Your task to perform on an android device: Add "logitech g933" to the cart on amazon.com, then select checkout. Image 0: 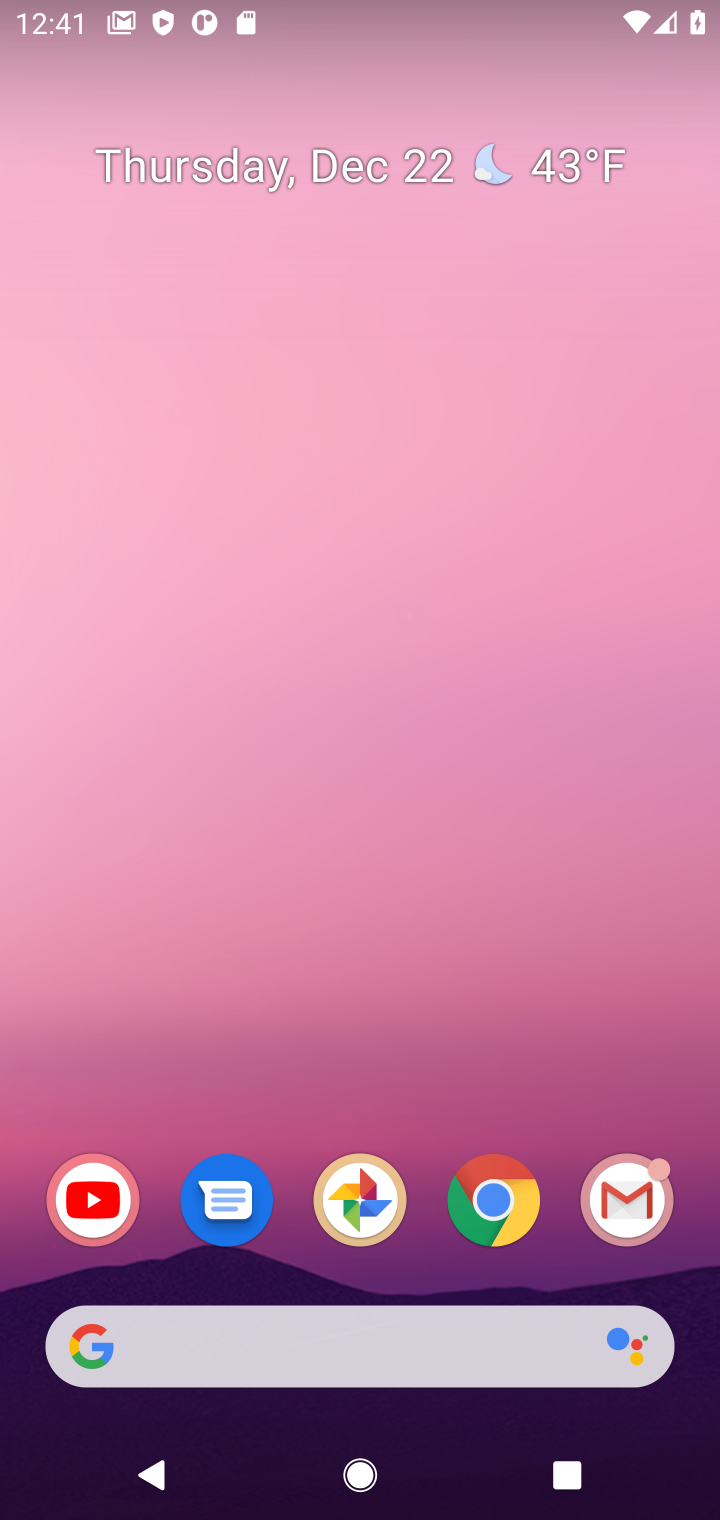
Step 0: click (507, 1200)
Your task to perform on an android device: Add "logitech g933" to the cart on amazon.com, then select checkout. Image 1: 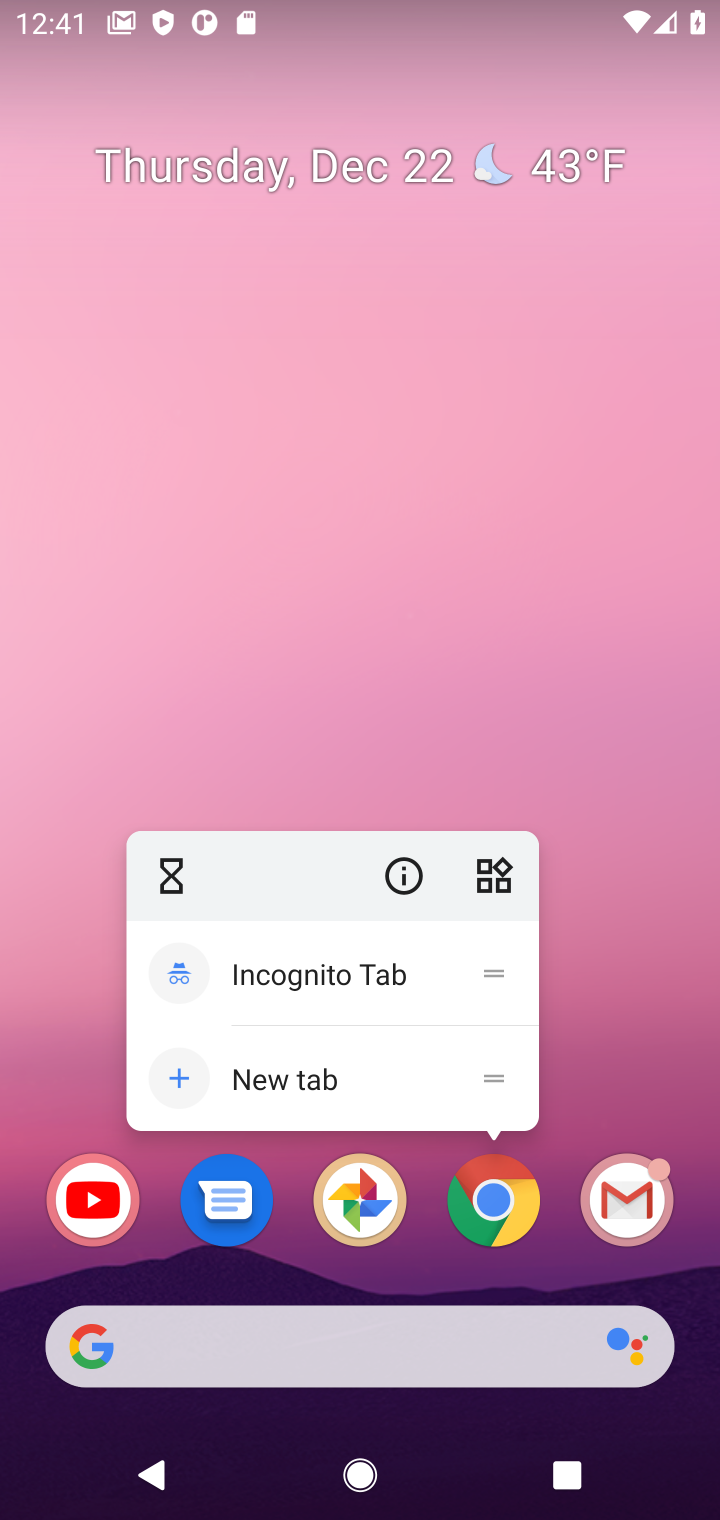
Step 1: click (499, 1222)
Your task to perform on an android device: Add "logitech g933" to the cart on amazon.com, then select checkout. Image 2: 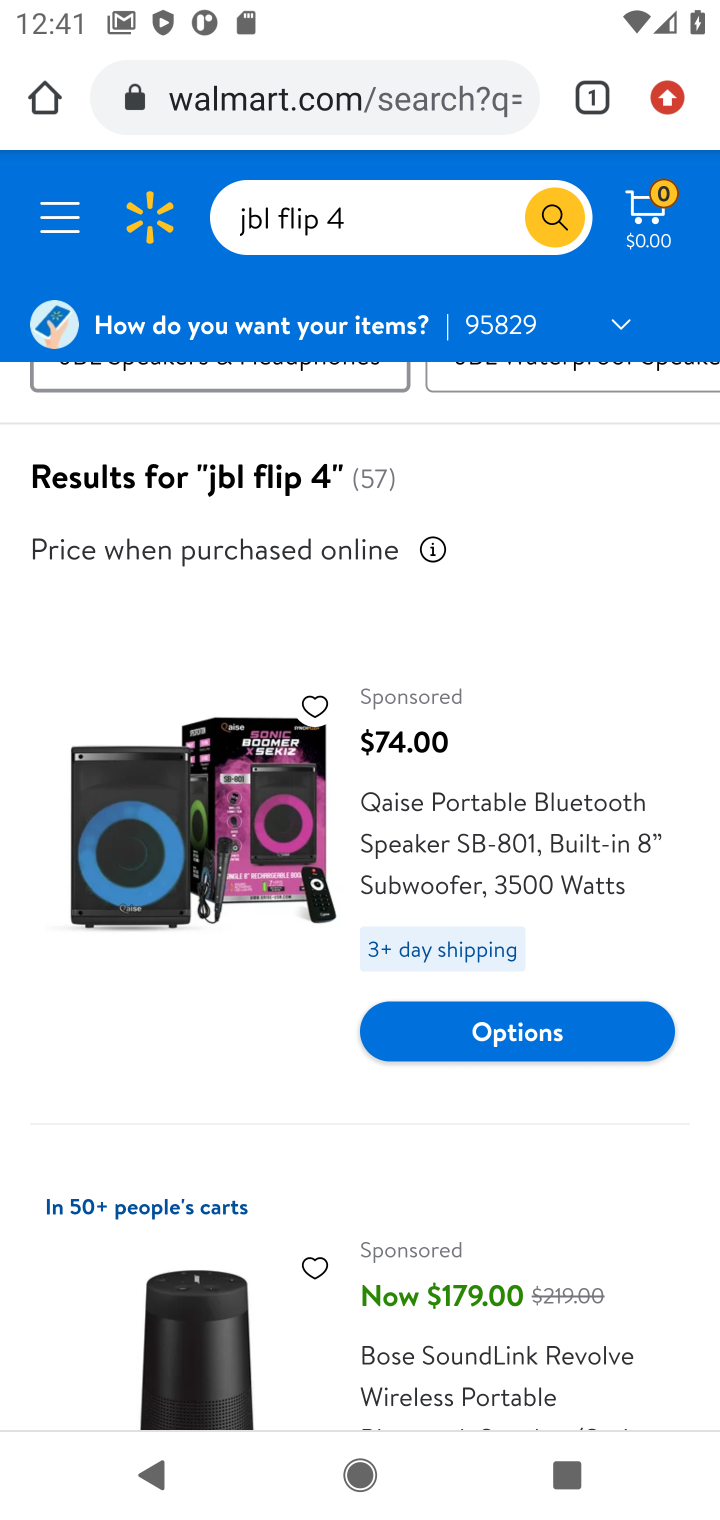
Step 2: click (294, 111)
Your task to perform on an android device: Add "logitech g933" to the cart on amazon.com, then select checkout. Image 3: 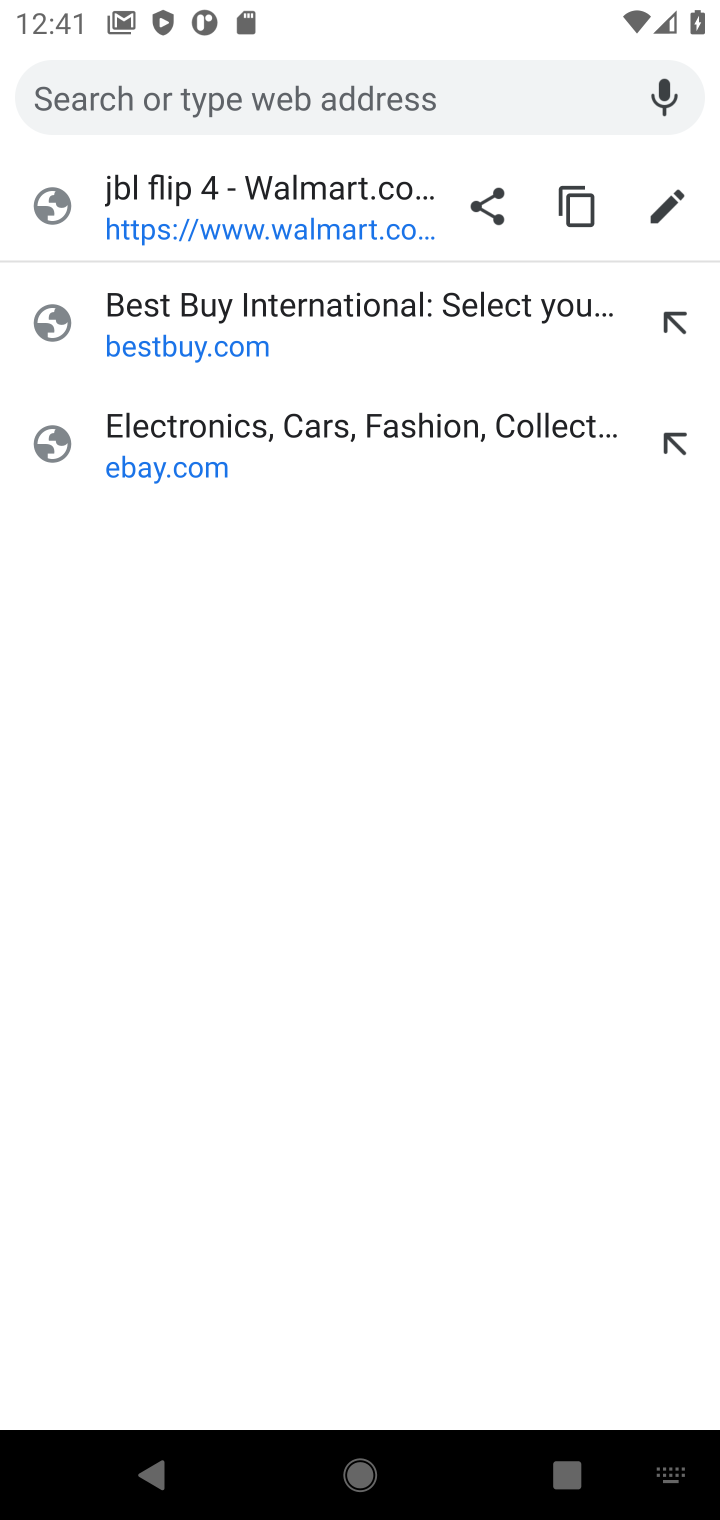
Step 3: type "amazon.com"
Your task to perform on an android device: Add "logitech g933" to the cart on amazon.com, then select checkout. Image 4: 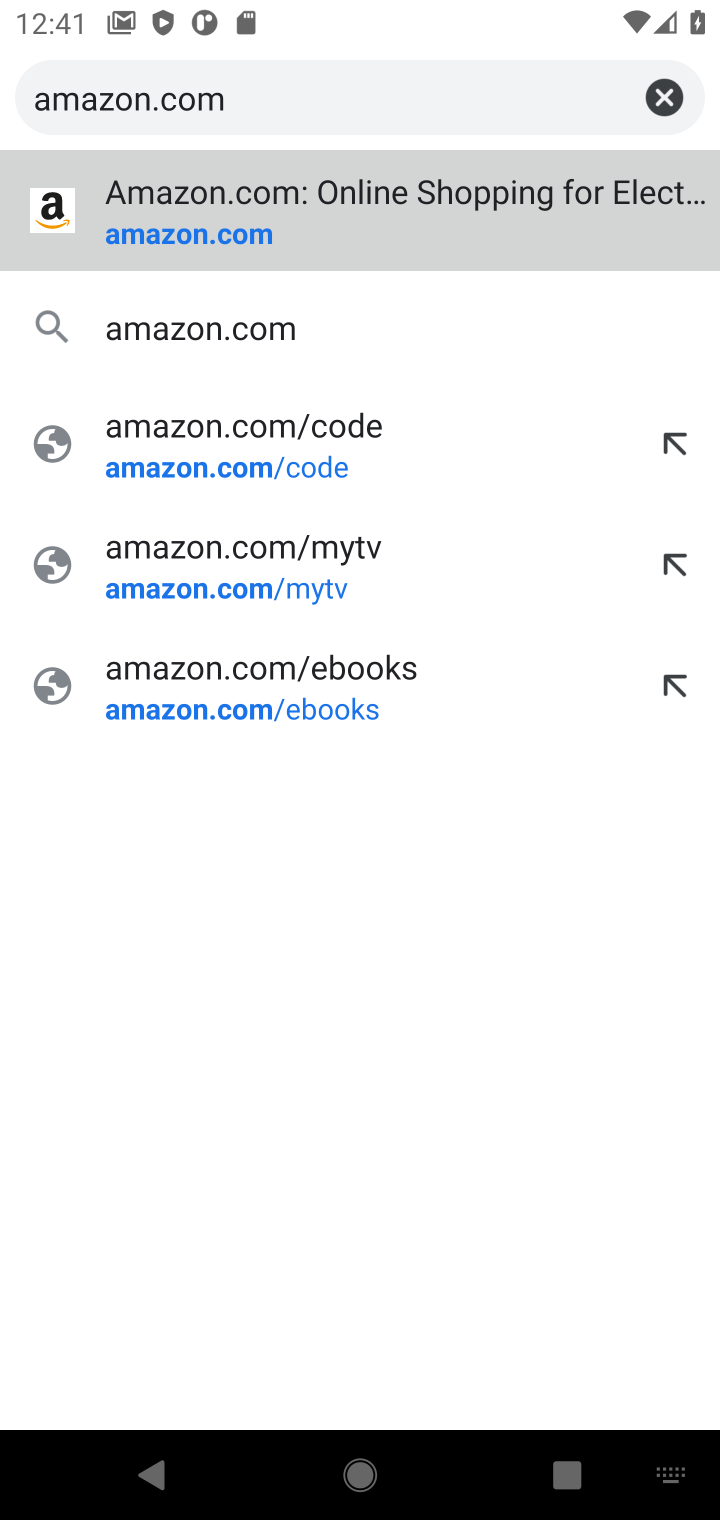
Step 4: click (127, 219)
Your task to perform on an android device: Add "logitech g933" to the cart on amazon.com, then select checkout. Image 5: 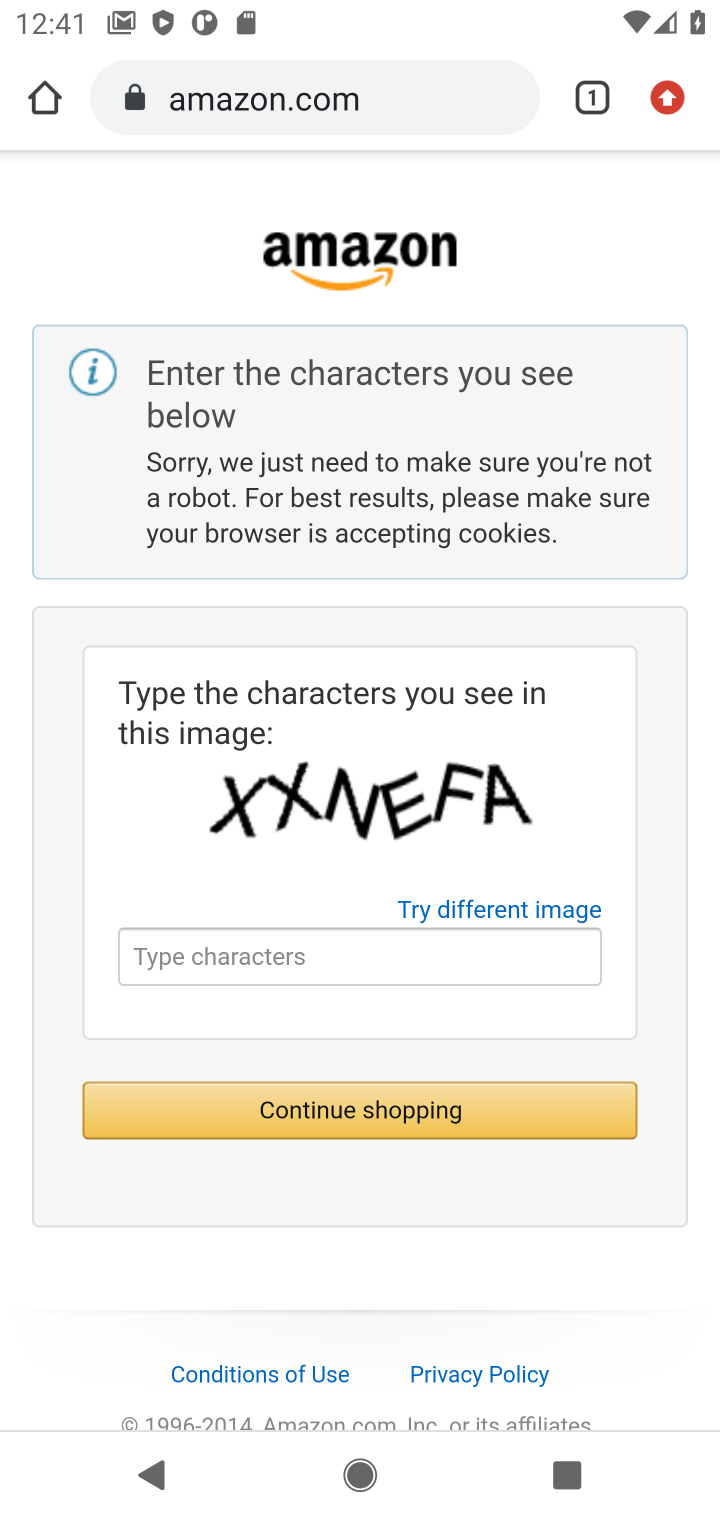
Step 5: click (277, 947)
Your task to perform on an android device: Add "logitech g933" to the cart on amazon.com, then select checkout. Image 6: 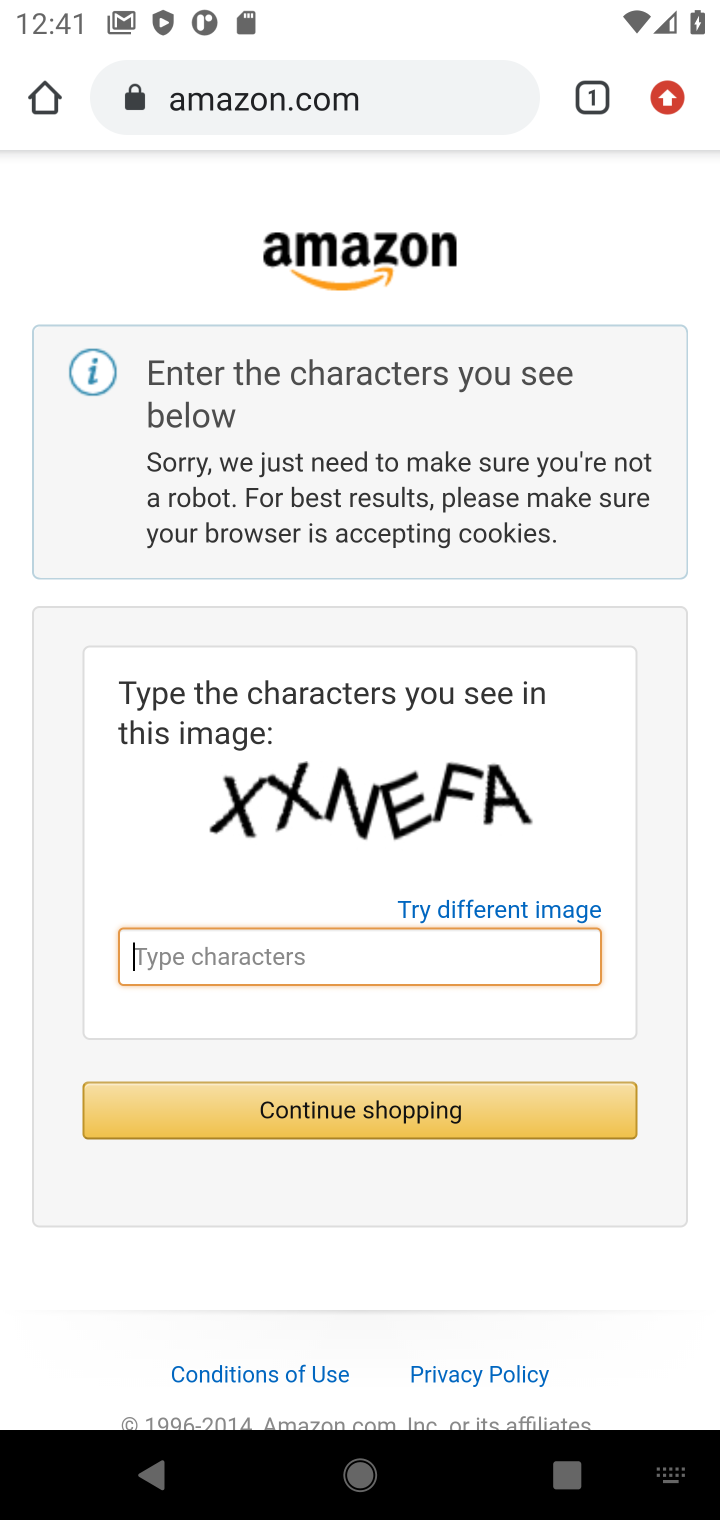
Step 6: click (277, 947)
Your task to perform on an android device: Add "logitech g933" to the cart on amazon.com, then select checkout. Image 7: 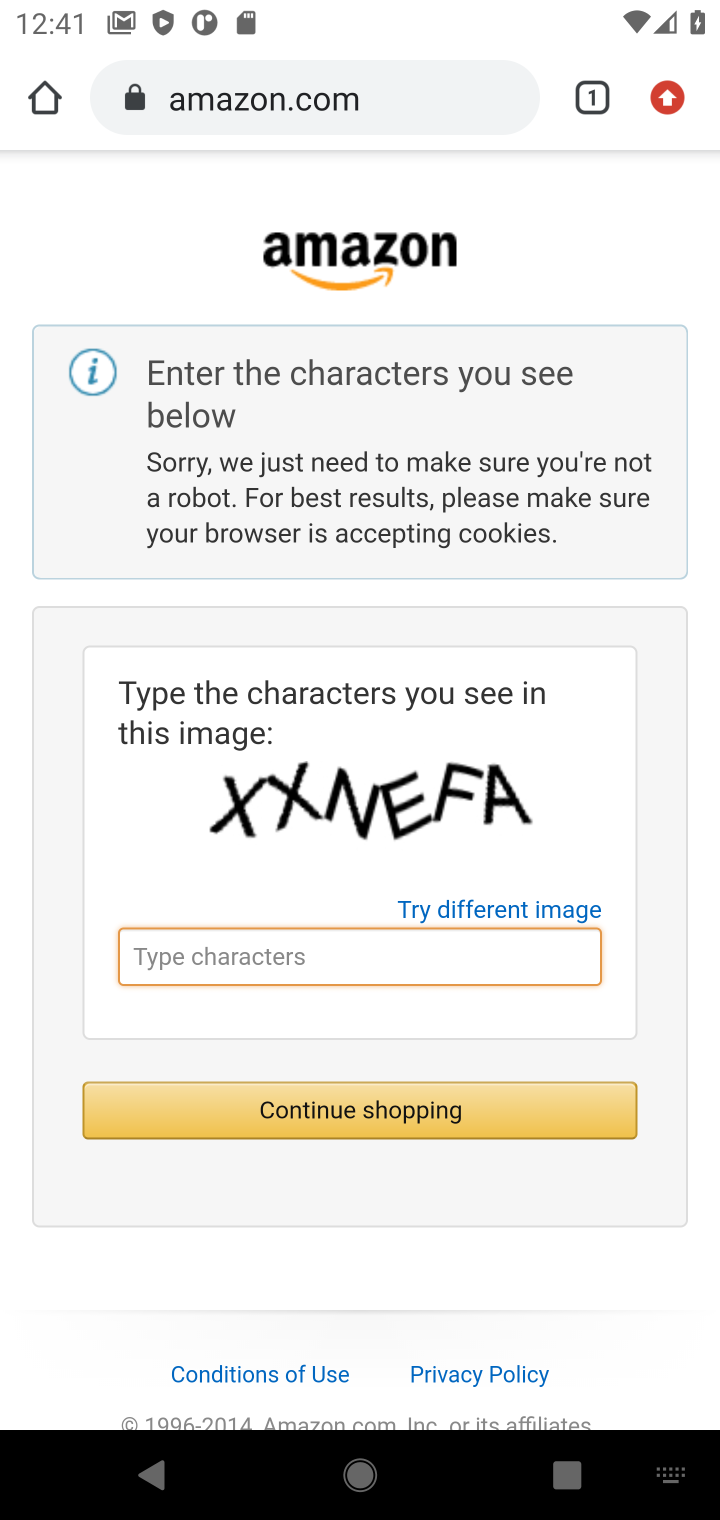
Step 7: type "XXNEFA"
Your task to perform on an android device: Add "logitech g933" to the cart on amazon.com, then select checkout. Image 8: 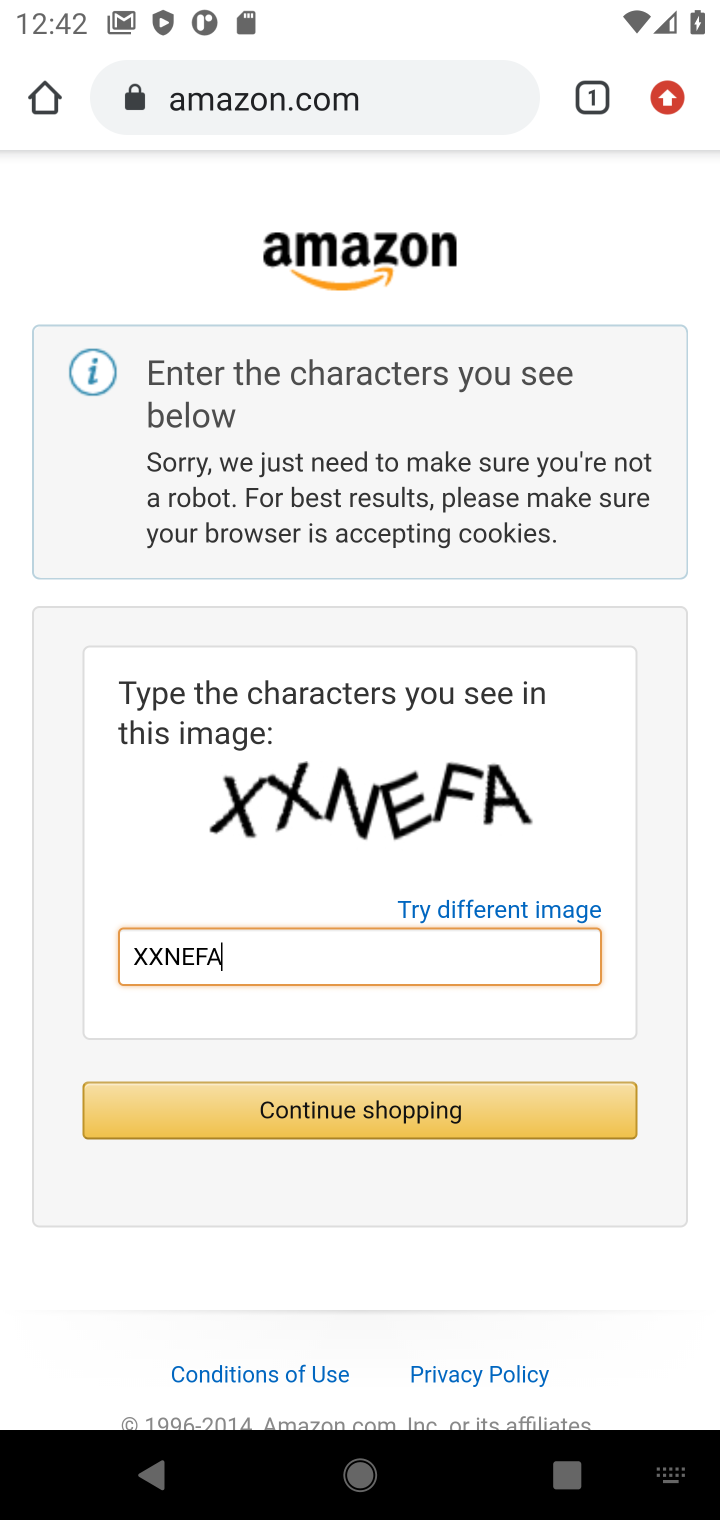
Step 8: click (355, 1109)
Your task to perform on an android device: Add "logitech g933" to the cart on amazon.com, then select checkout. Image 9: 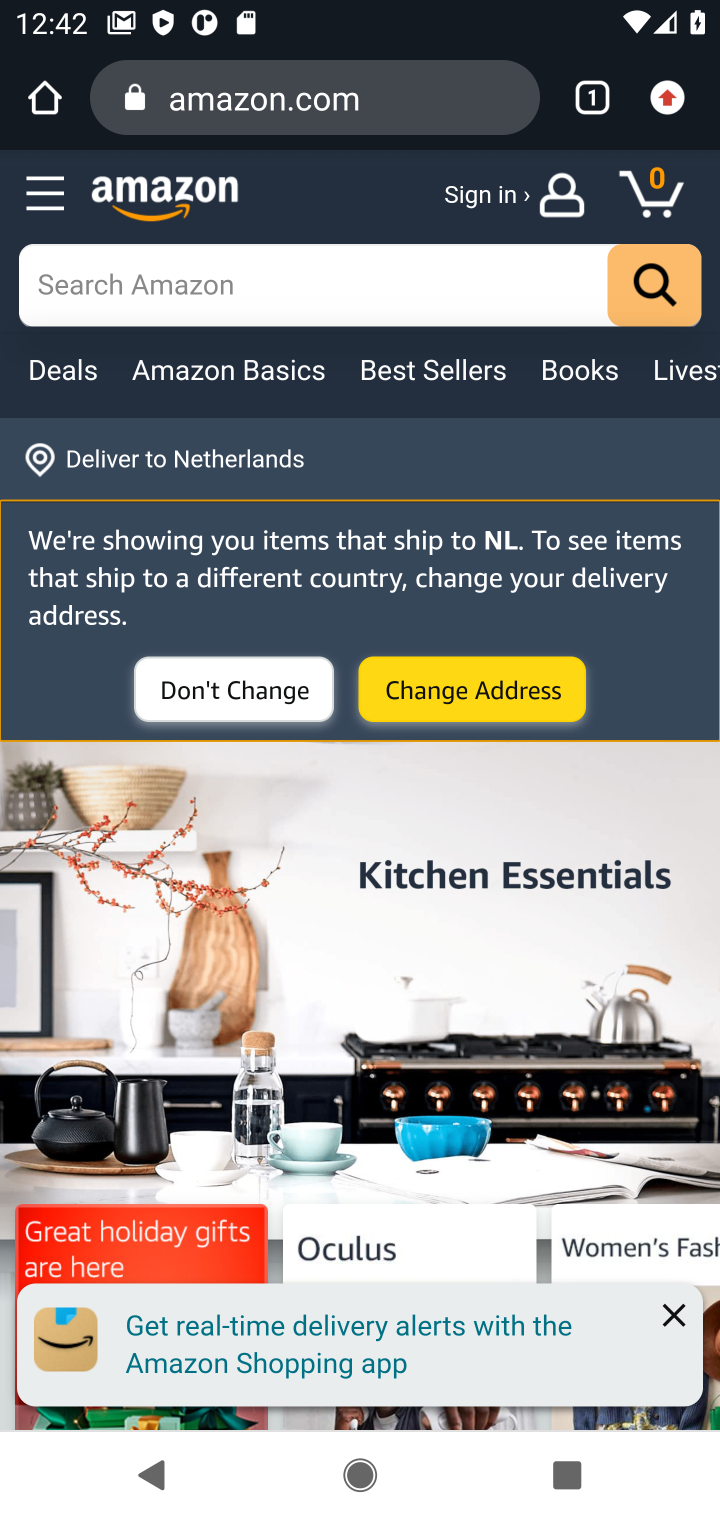
Step 9: click (118, 292)
Your task to perform on an android device: Add "logitech g933" to the cart on amazon.com, then select checkout. Image 10: 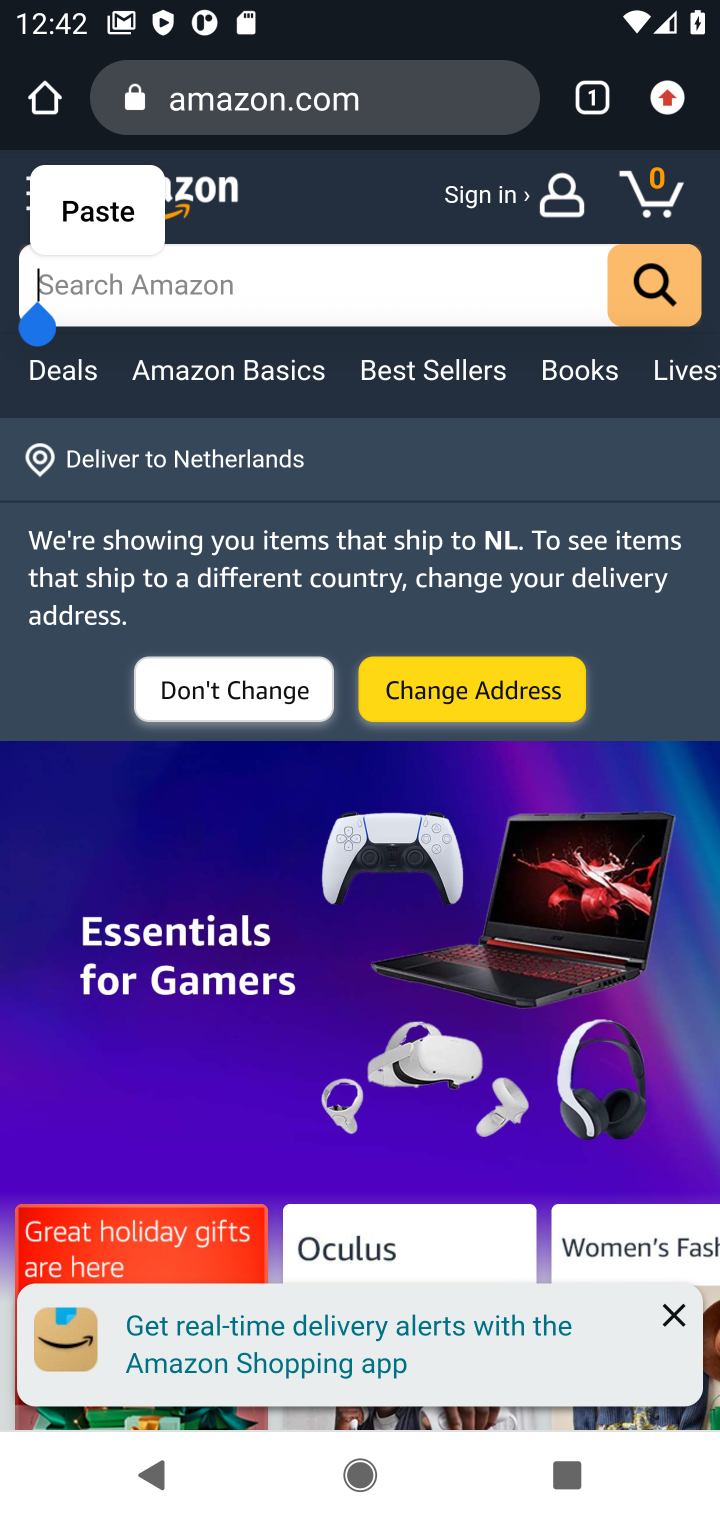
Step 10: type "logitech g933"
Your task to perform on an android device: Add "logitech g933" to the cart on amazon.com, then select checkout. Image 11: 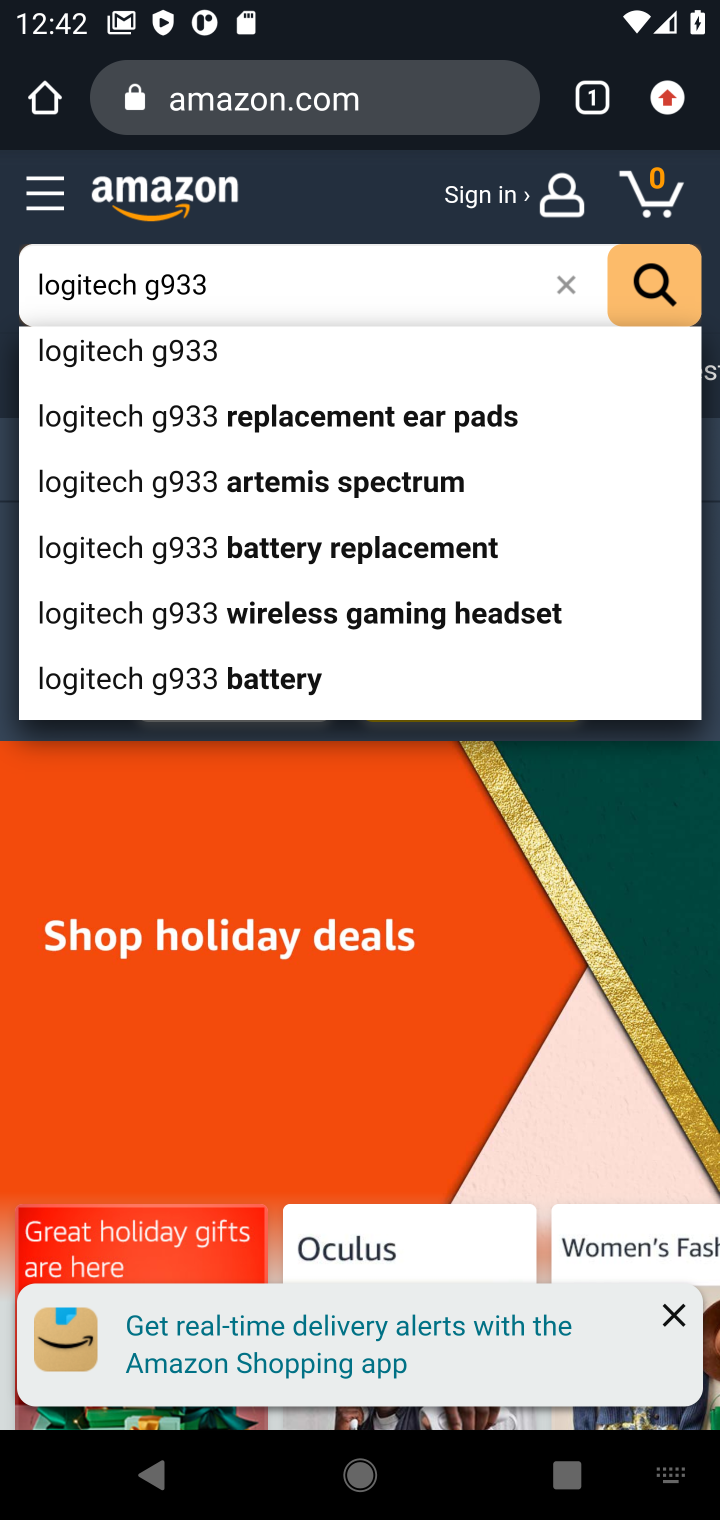
Step 11: click (57, 366)
Your task to perform on an android device: Add "logitech g933" to the cart on amazon.com, then select checkout. Image 12: 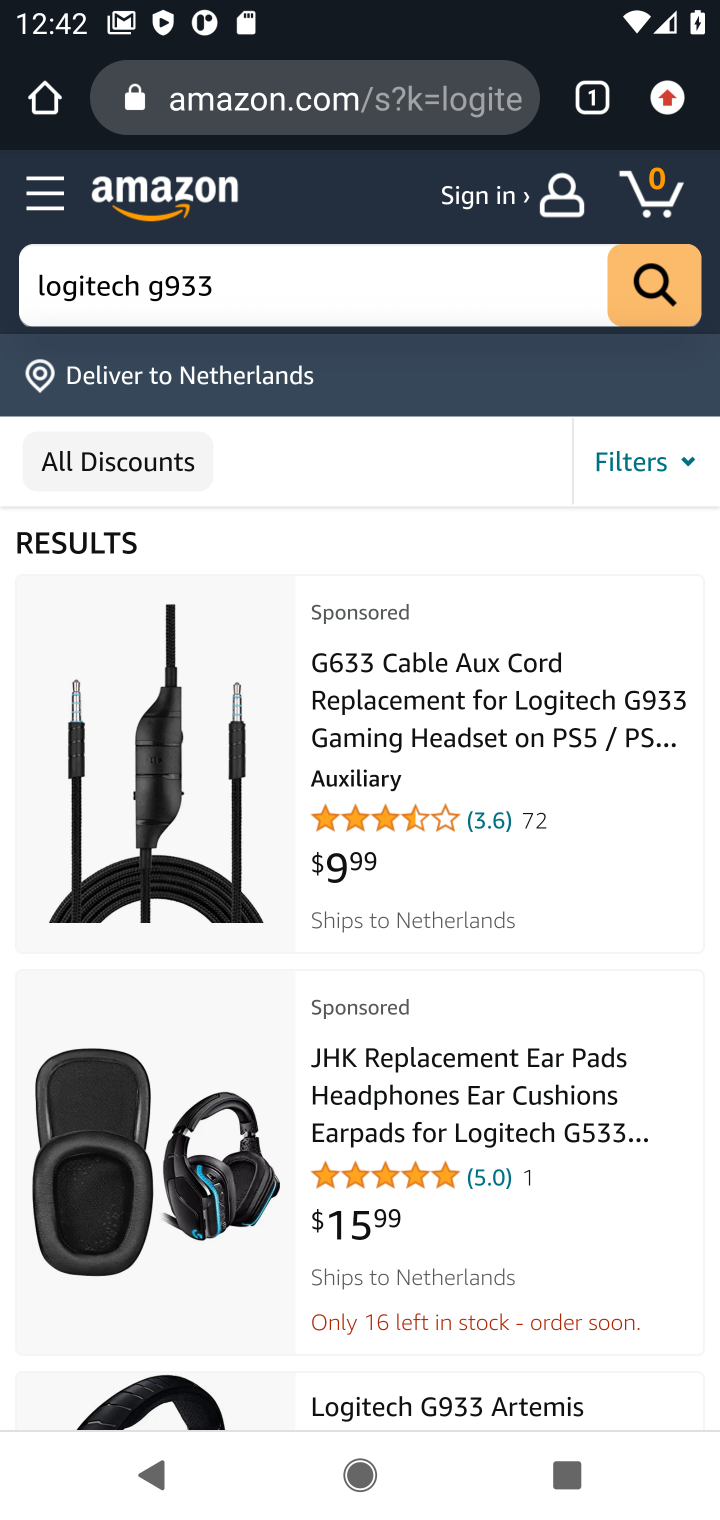
Step 12: click (364, 739)
Your task to perform on an android device: Add "logitech g933" to the cart on amazon.com, then select checkout. Image 13: 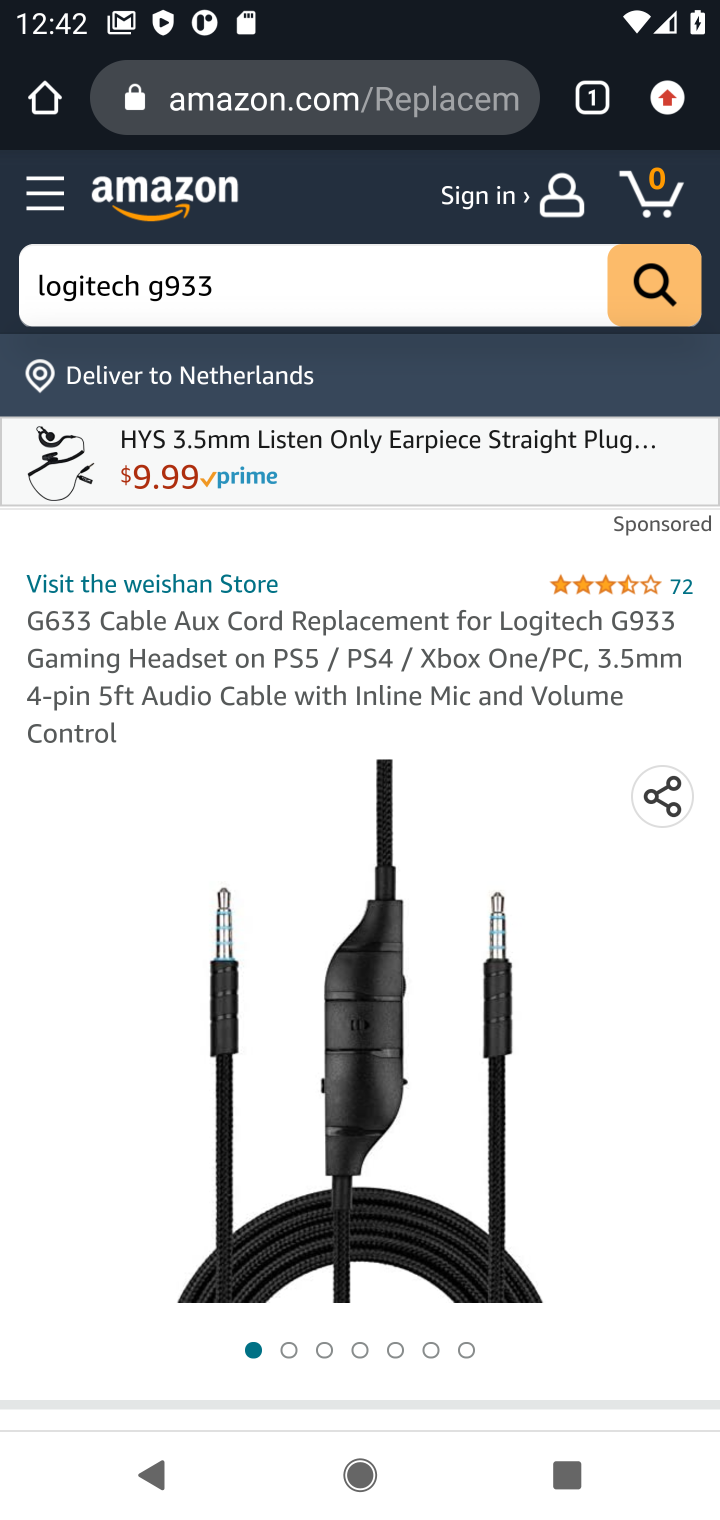
Step 13: drag from (335, 1088) to (373, 681)
Your task to perform on an android device: Add "logitech g933" to the cart on amazon.com, then select checkout. Image 14: 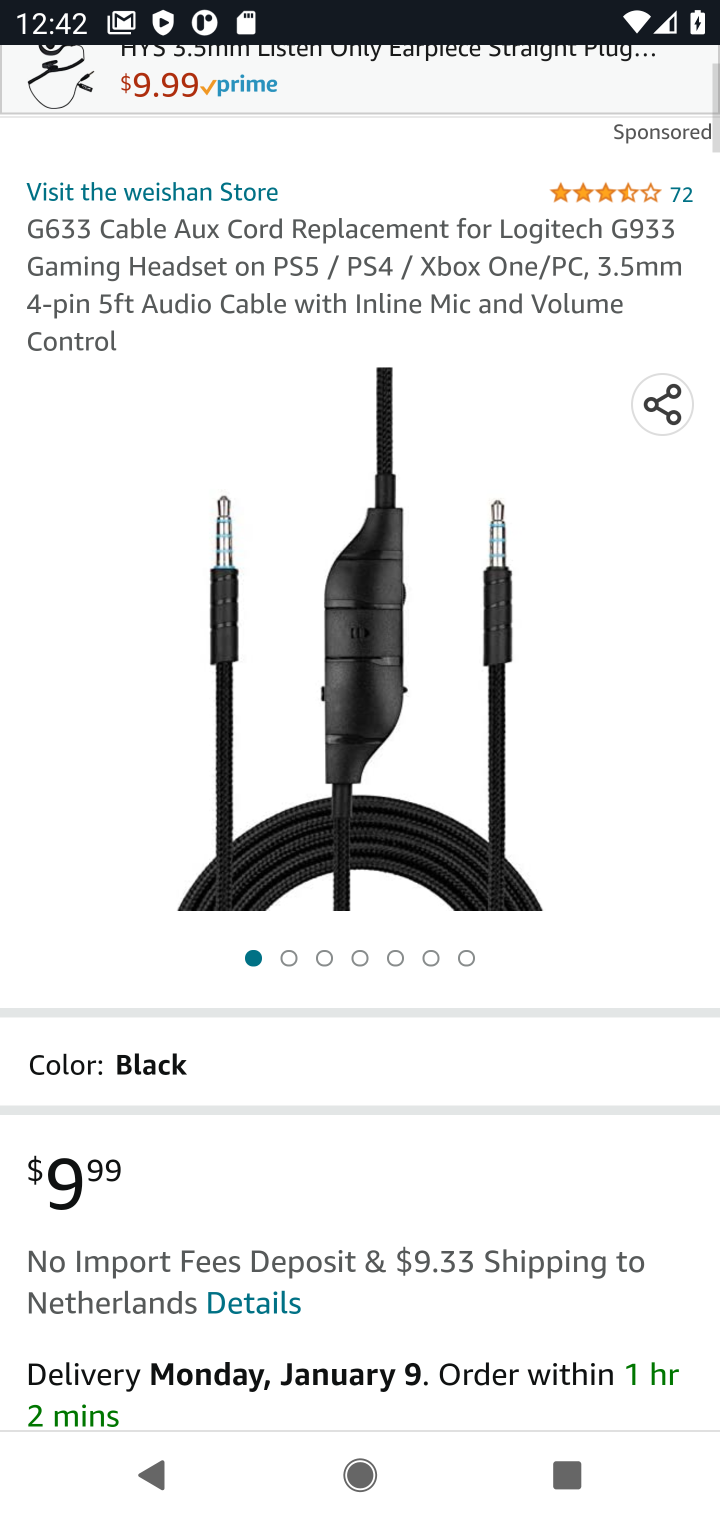
Step 14: drag from (365, 1048) to (367, 395)
Your task to perform on an android device: Add "logitech g933" to the cart on amazon.com, then select checkout. Image 15: 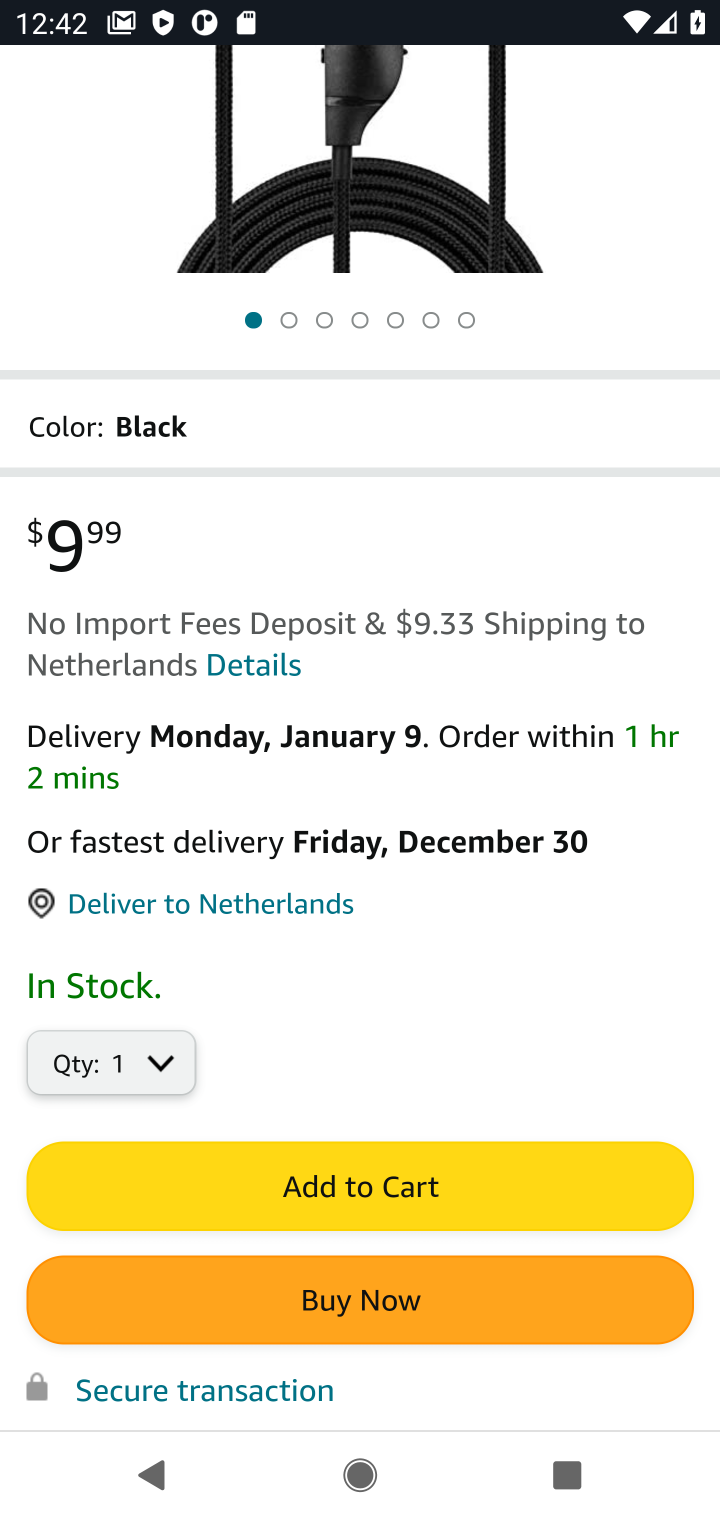
Step 15: click (360, 1183)
Your task to perform on an android device: Add "logitech g933" to the cart on amazon.com, then select checkout. Image 16: 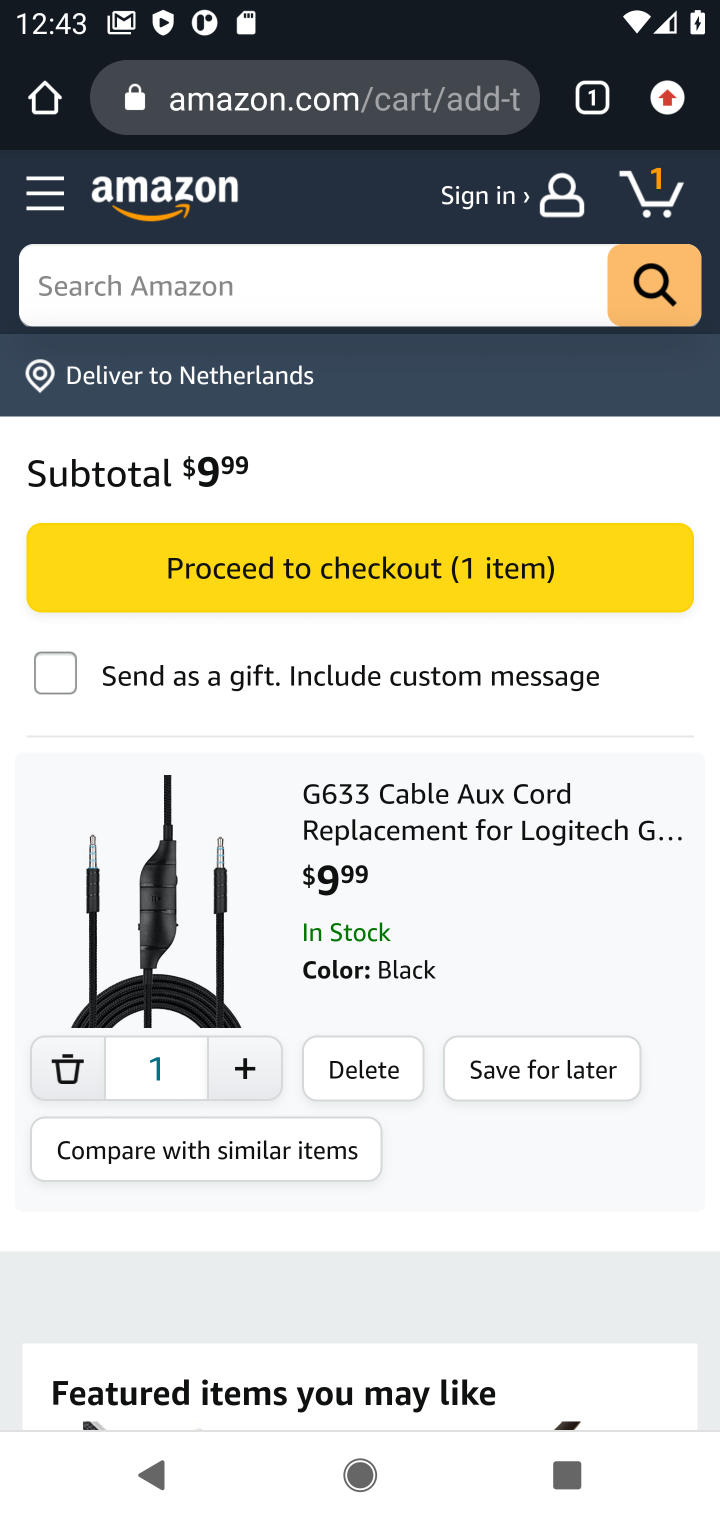
Step 16: click (322, 558)
Your task to perform on an android device: Add "logitech g933" to the cart on amazon.com, then select checkout. Image 17: 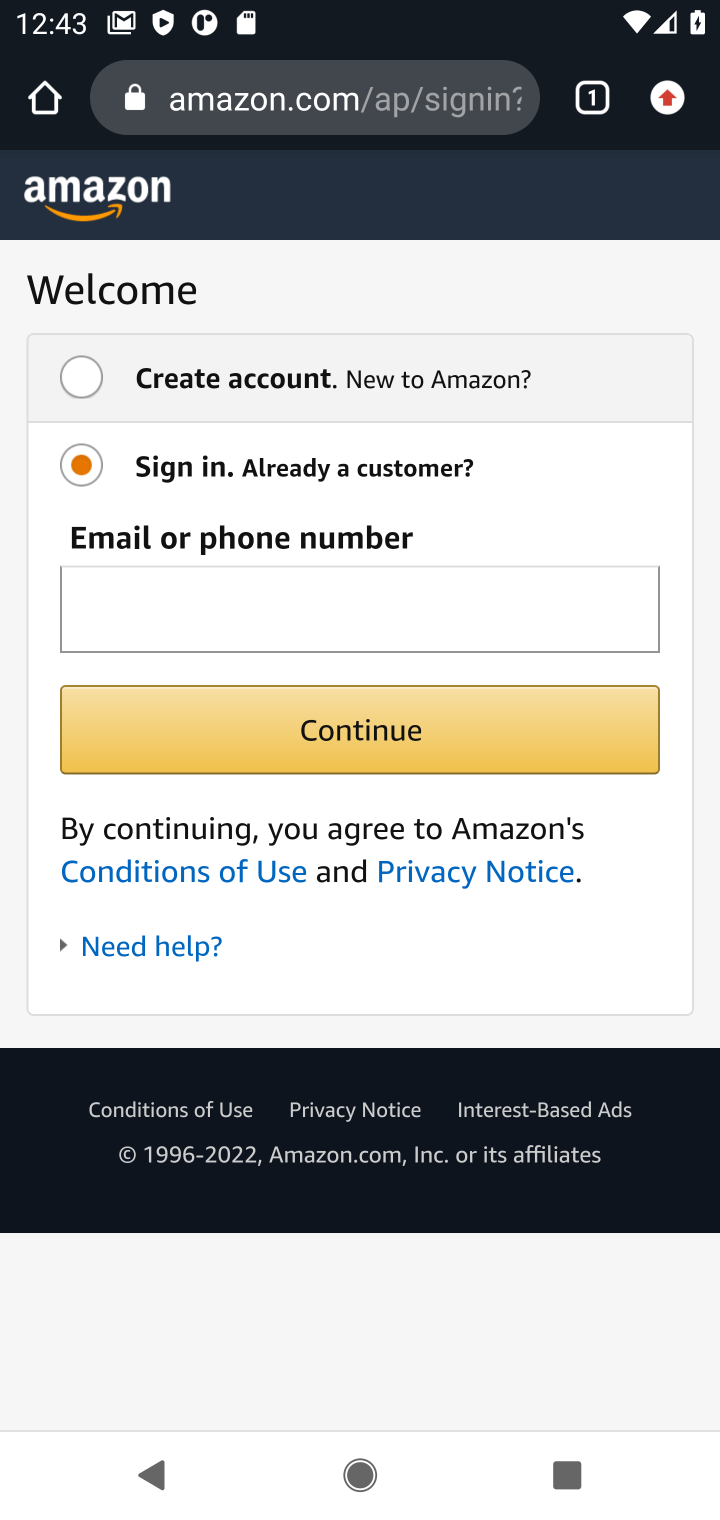
Step 17: task complete